Your task to perform on an android device: change the clock display to analog Image 0: 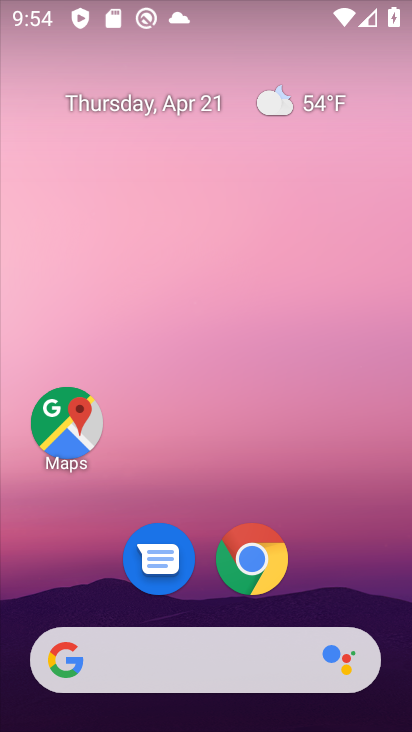
Step 0: press home button
Your task to perform on an android device: change the clock display to analog Image 1: 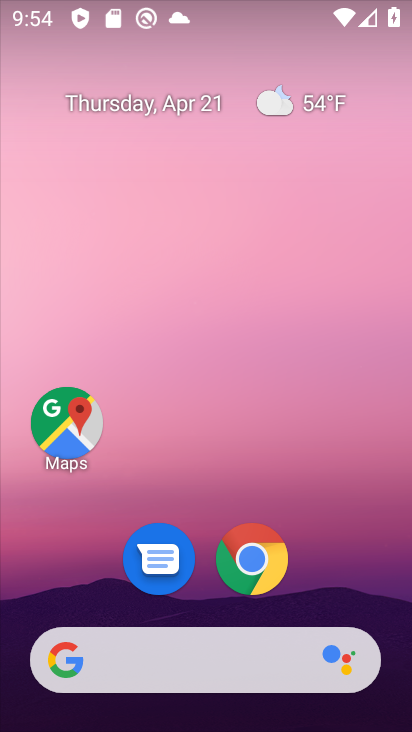
Step 1: drag from (120, 662) to (259, 180)
Your task to perform on an android device: change the clock display to analog Image 2: 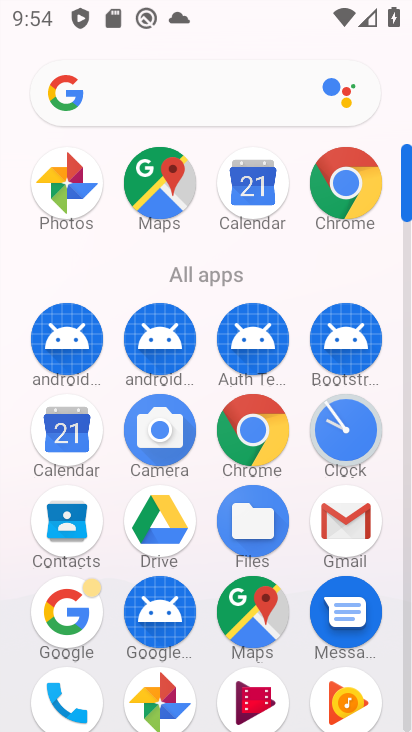
Step 2: click (348, 433)
Your task to perform on an android device: change the clock display to analog Image 3: 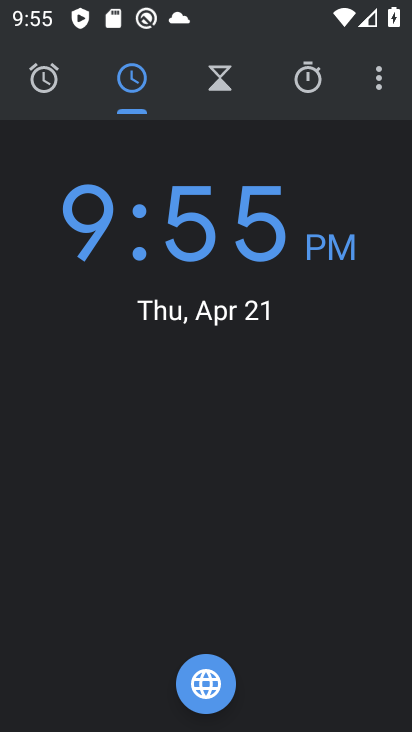
Step 3: click (382, 83)
Your task to perform on an android device: change the clock display to analog Image 4: 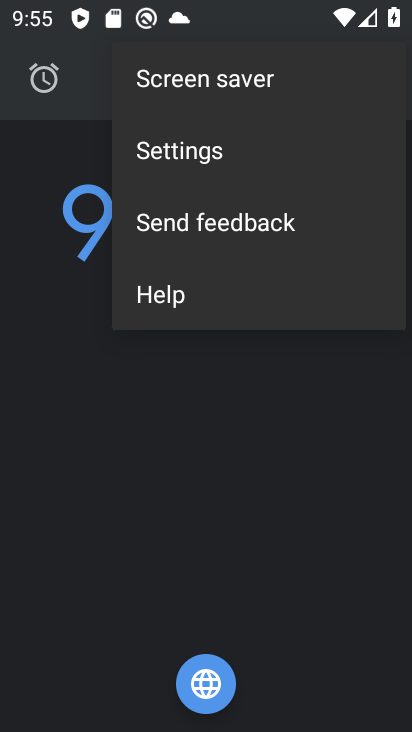
Step 4: click (163, 144)
Your task to perform on an android device: change the clock display to analog Image 5: 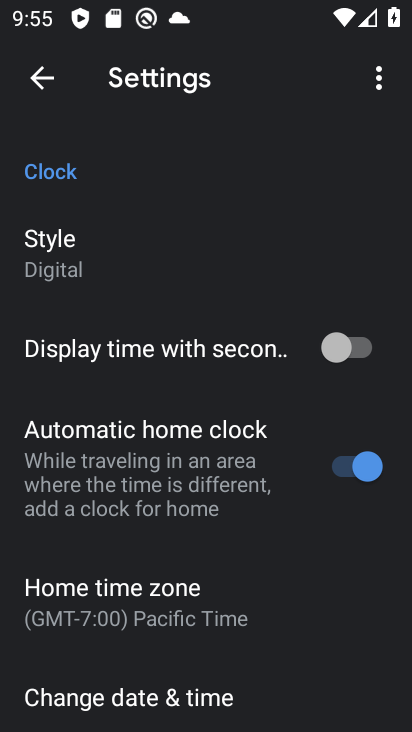
Step 5: click (76, 265)
Your task to perform on an android device: change the clock display to analog Image 6: 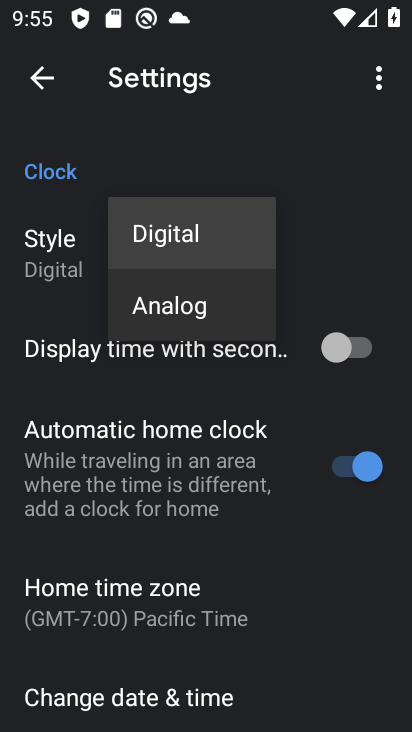
Step 6: click (153, 312)
Your task to perform on an android device: change the clock display to analog Image 7: 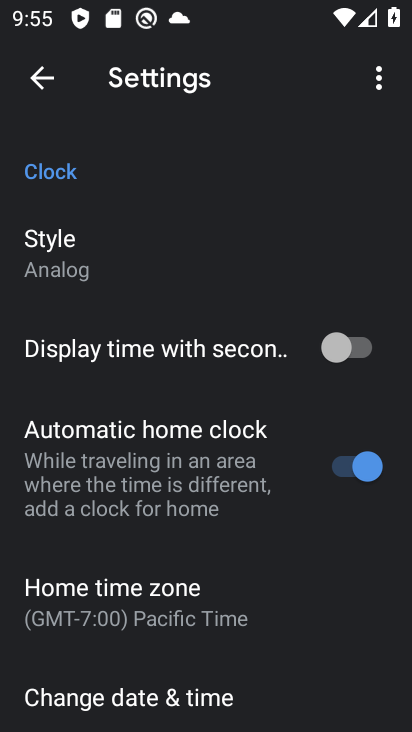
Step 7: task complete